Your task to perform on an android device: set the stopwatch Image 0: 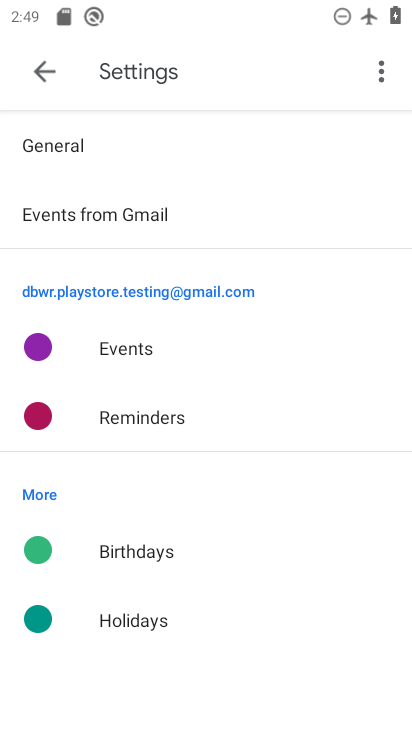
Step 0: drag from (222, 613) to (239, 264)
Your task to perform on an android device: set the stopwatch Image 1: 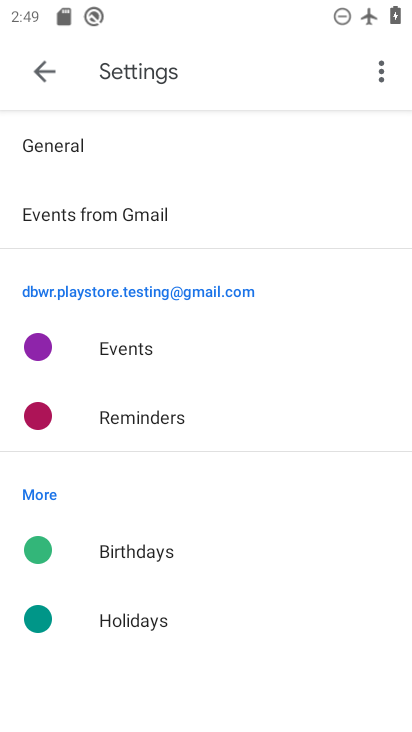
Step 1: press home button
Your task to perform on an android device: set the stopwatch Image 2: 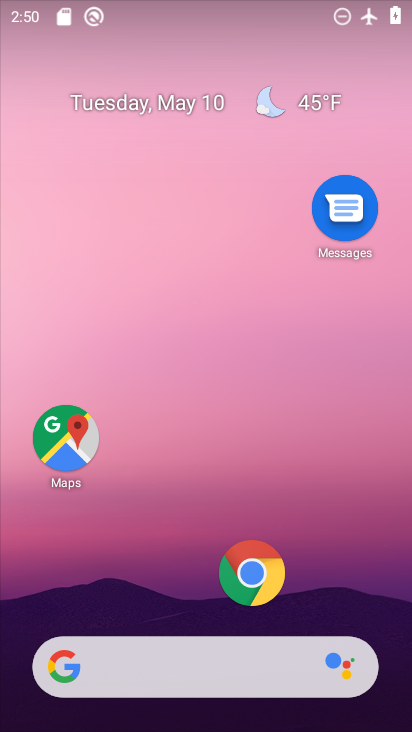
Step 2: drag from (207, 589) to (241, 234)
Your task to perform on an android device: set the stopwatch Image 3: 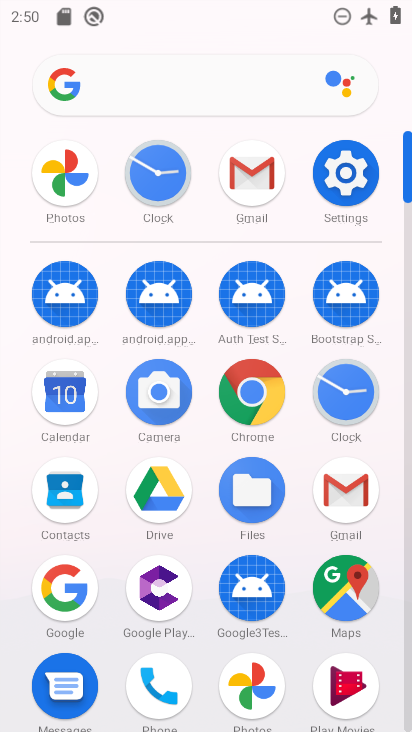
Step 3: drag from (211, 658) to (244, 314)
Your task to perform on an android device: set the stopwatch Image 4: 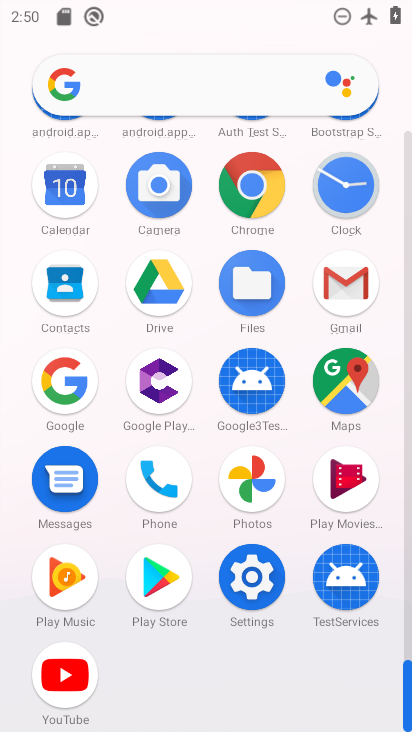
Step 4: click (339, 185)
Your task to perform on an android device: set the stopwatch Image 5: 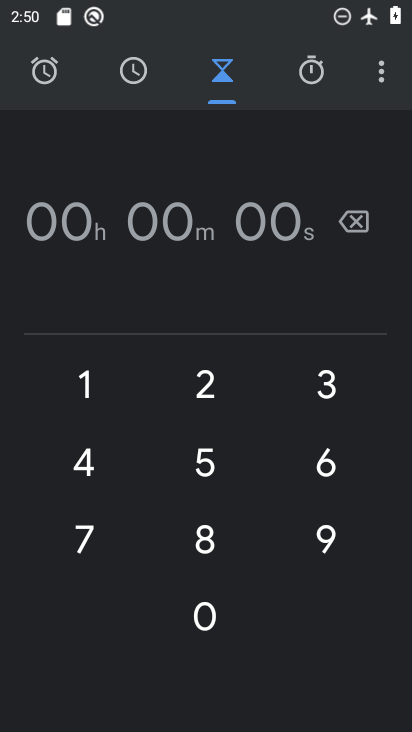
Step 5: click (310, 72)
Your task to perform on an android device: set the stopwatch Image 6: 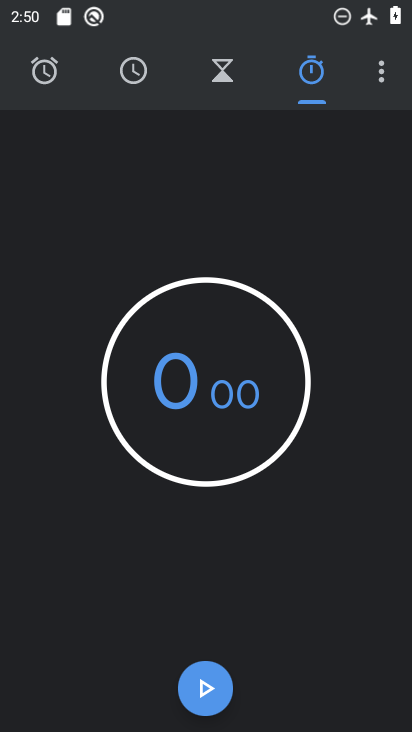
Step 6: click (205, 688)
Your task to perform on an android device: set the stopwatch Image 7: 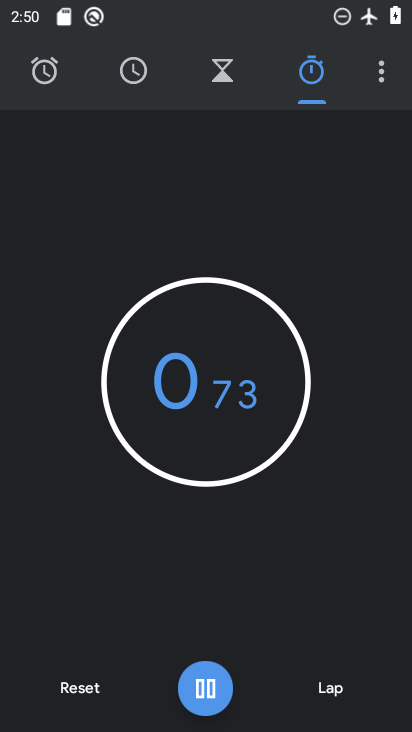
Step 7: task complete